Your task to perform on an android device: allow cookies in the chrome app Image 0: 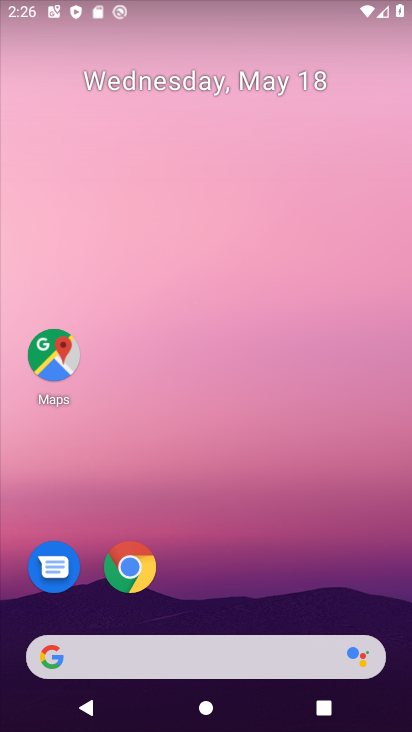
Step 0: click (132, 568)
Your task to perform on an android device: allow cookies in the chrome app Image 1: 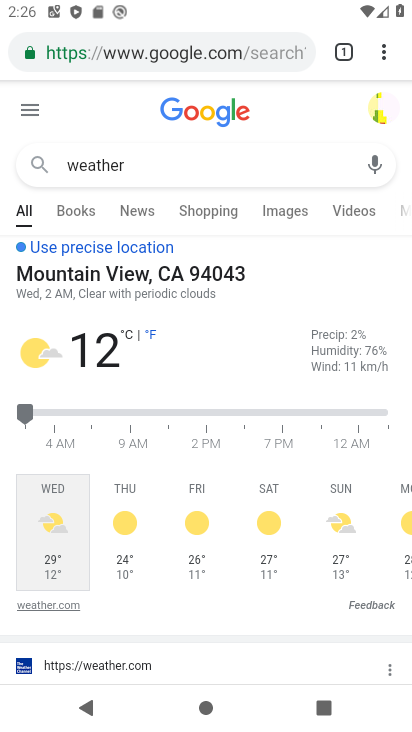
Step 1: drag from (389, 57) to (250, 596)
Your task to perform on an android device: allow cookies in the chrome app Image 2: 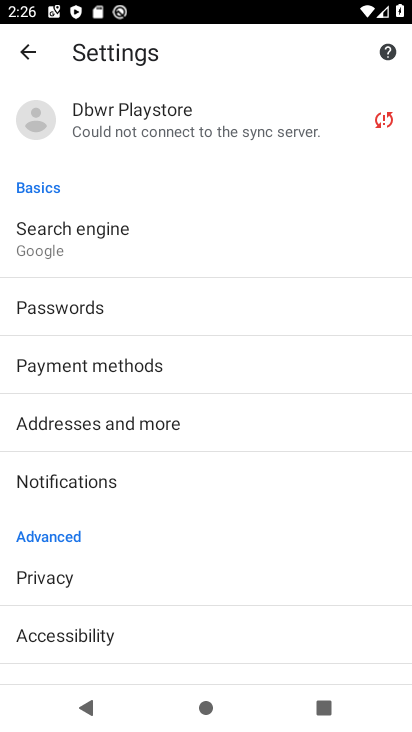
Step 2: drag from (150, 479) to (190, 271)
Your task to perform on an android device: allow cookies in the chrome app Image 3: 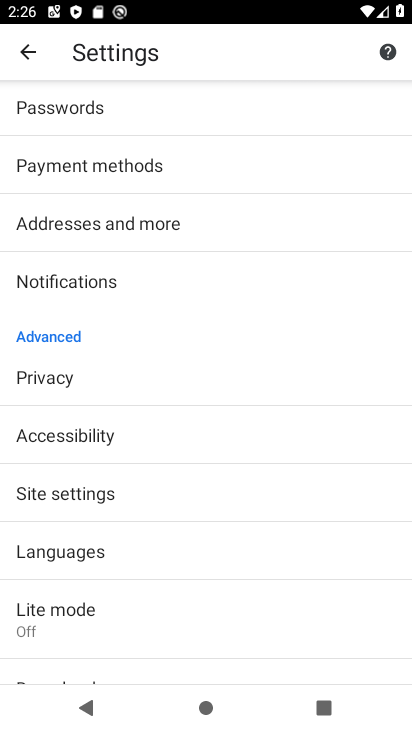
Step 3: click (83, 495)
Your task to perform on an android device: allow cookies in the chrome app Image 4: 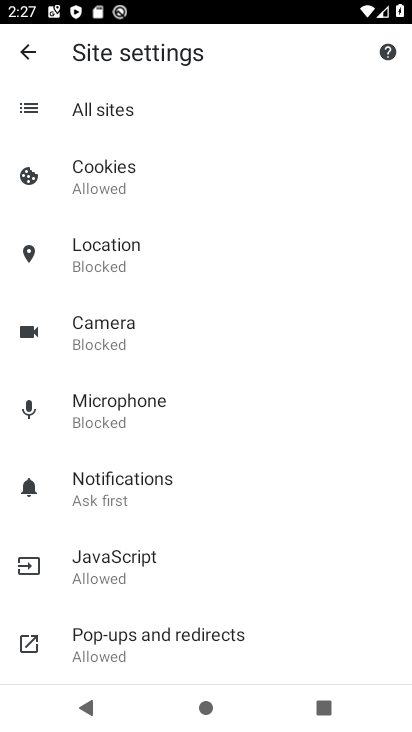
Step 4: drag from (146, 596) to (169, 328)
Your task to perform on an android device: allow cookies in the chrome app Image 5: 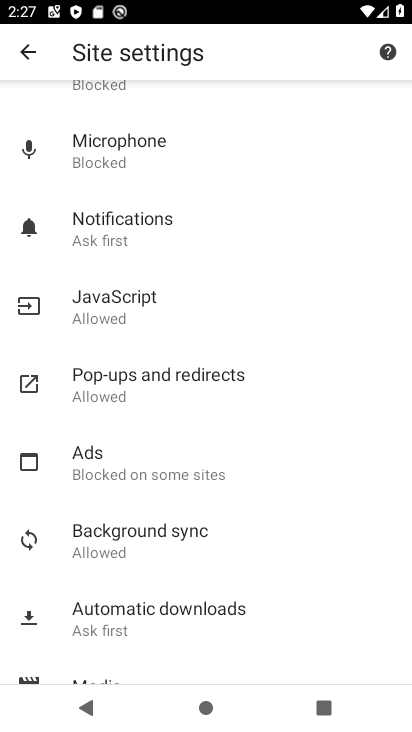
Step 5: drag from (156, 236) to (190, 674)
Your task to perform on an android device: allow cookies in the chrome app Image 6: 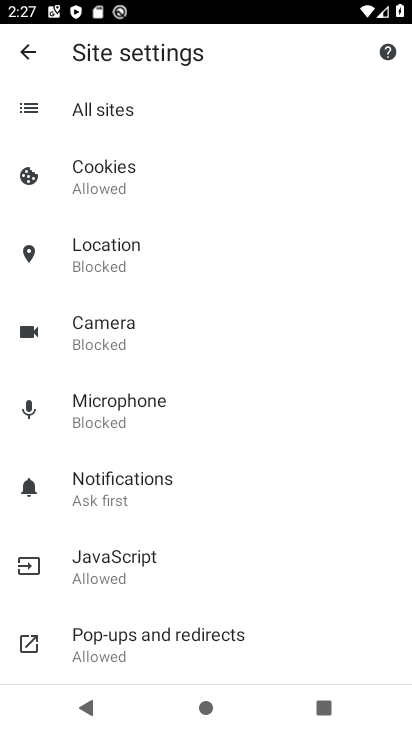
Step 6: click (121, 165)
Your task to perform on an android device: allow cookies in the chrome app Image 7: 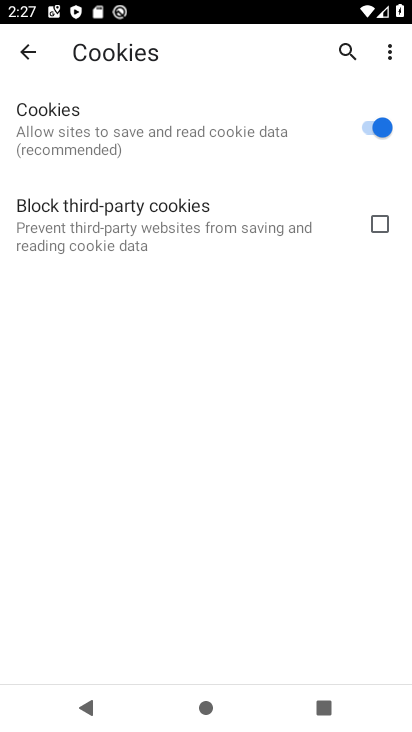
Step 7: task complete